Your task to perform on an android device: delete browsing data in the chrome app Image 0: 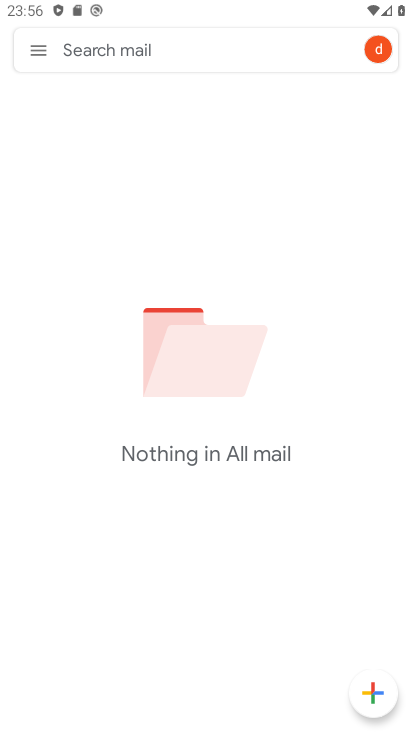
Step 0: press home button
Your task to perform on an android device: delete browsing data in the chrome app Image 1: 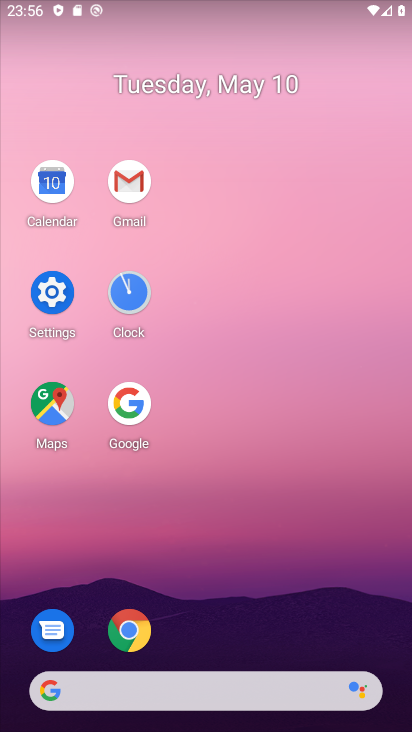
Step 1: click (126, 641)
Your task to perform on an android device: delete browsing data in the chrome app Image 2: 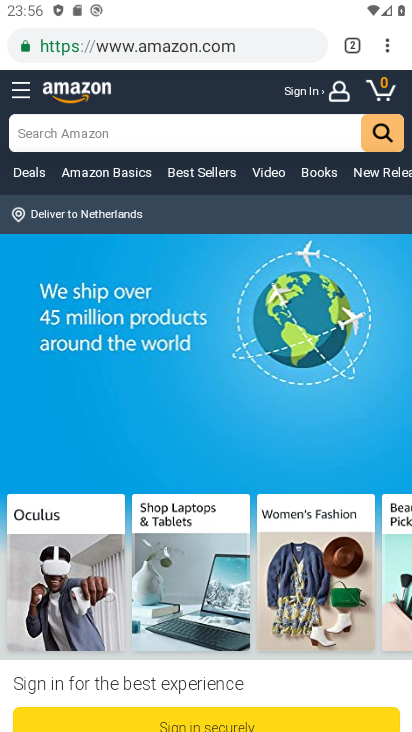
Step 2: click (388, 38)
Your task to perform on an android device: delete browsing data in the chrome app Image 3: 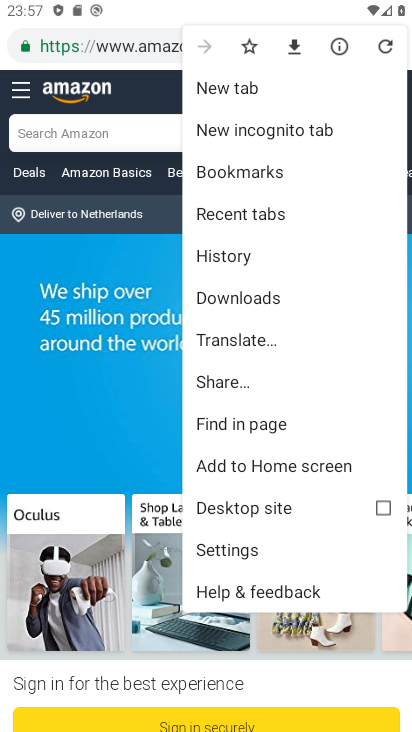
Step 3: click (284, 550)
Your task to perform on an android device: delete browsing data in the chrome app Image 4: 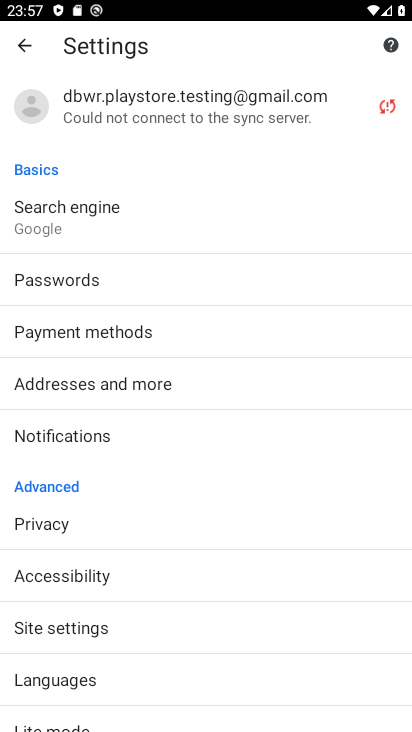
Step 4: click (116, 530)
Your task to perform on an android device: delete browsing data in the chrome app Image 5: 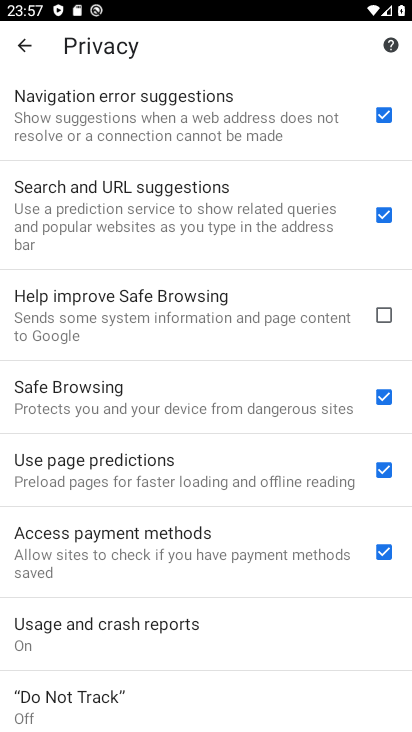
Step 5: drag from (280, 670) to (314, 210)
Your task to perform on an android device: delete browsing data in the chrome app Image 6: 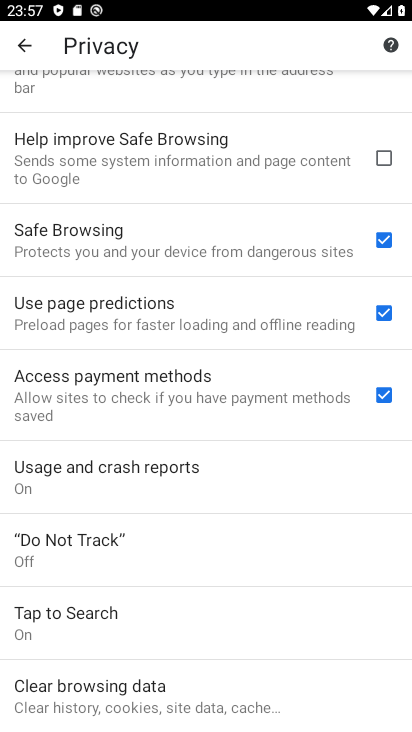
Step 6: drag from (152, 605) to (199, 301)
Your task to perform on an android device: delete browsing data in the chrome app Image 7: 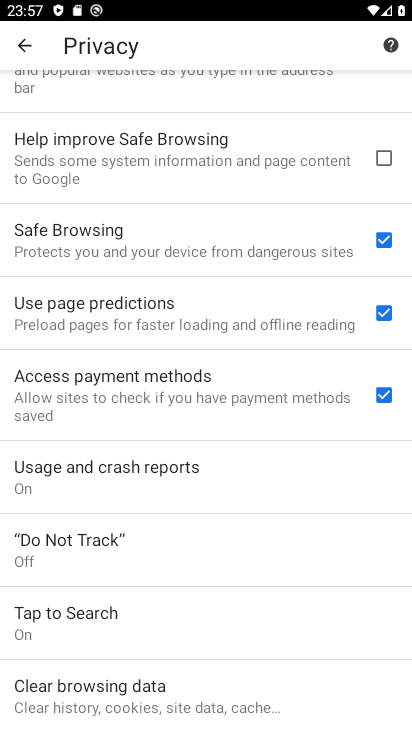
Step 7: click (188, 689)
Your task to perform on an android device: delete browsing data in the chrome app Image 8: 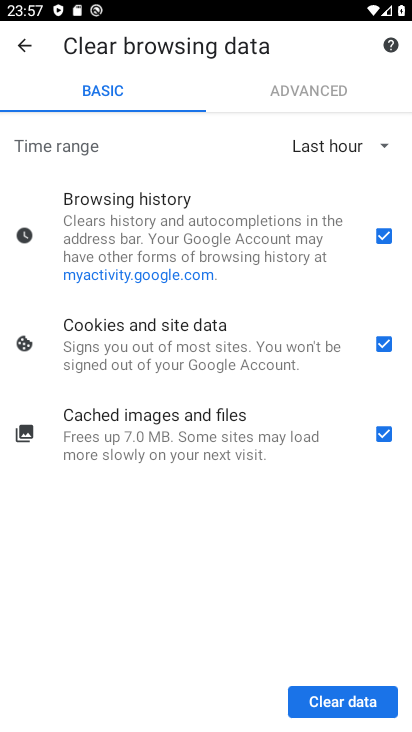
Step 8: click (346, 698)
Your task to perform on an android device: delete browsing data in the chrome app Image 9: 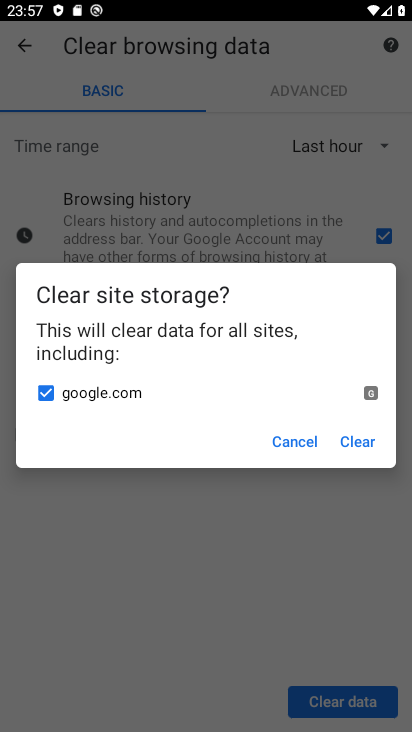
Step 9: click (363, 439)
Your task to perform on an android device: delete browsing data in the chrome app Image 10: 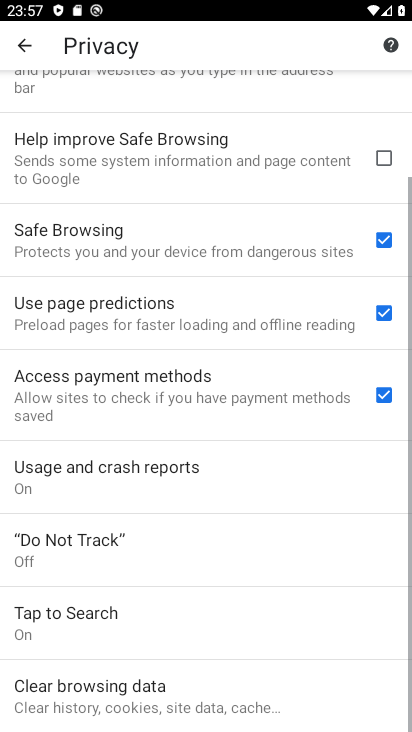
Step 10: task complete